Your task to perform on an android device: Show me the alarms in the clock app Image 0: 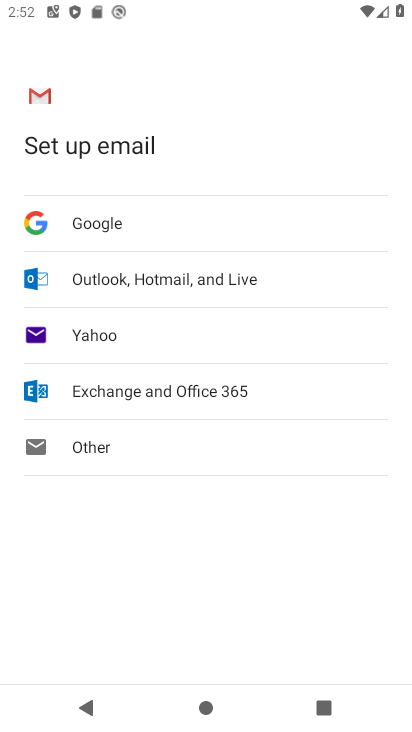
Step 0: press home button
Your task to perform on an android device: Show me the alarms in the clock app Image 1: 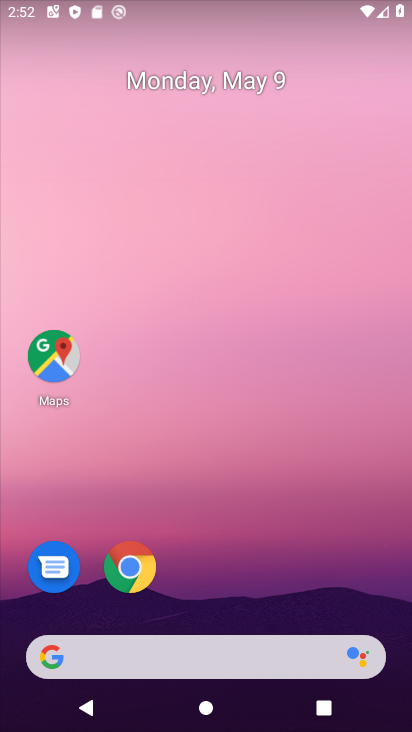
Step 1: drag from (222, 578) to (173, 162)
Your task to perform on an android device: Show me the alarms in the clock app Image 2: 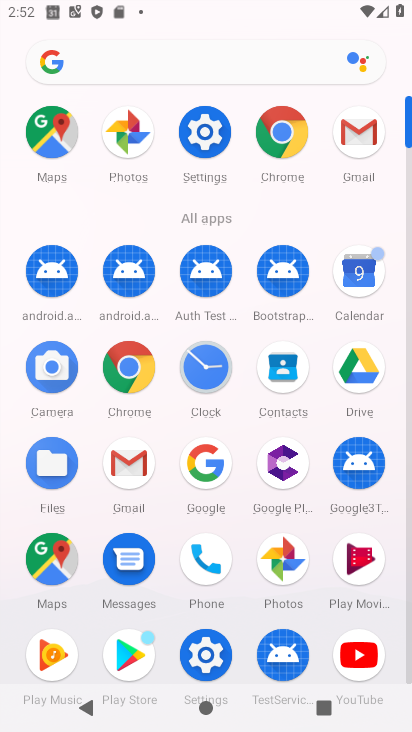
Step 2: drag from (205, 575) to (180, 364)
Your task to perform on an android device: Show me the alarms in the clock app Image 3: 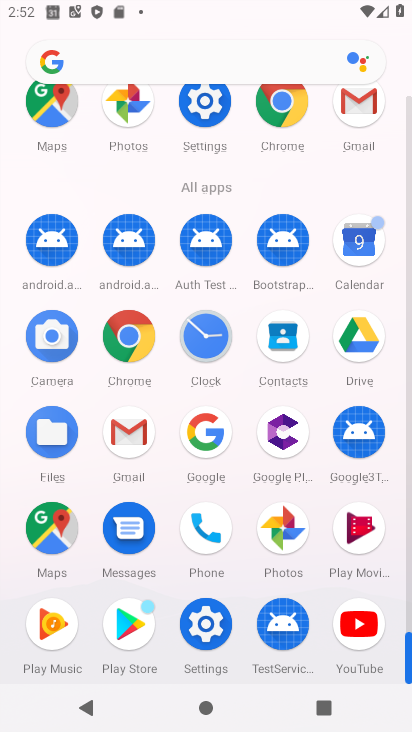
Step 3: click (208, 348)
Your task to perform on an android device: Show me the alarms in the clock app Image 4: 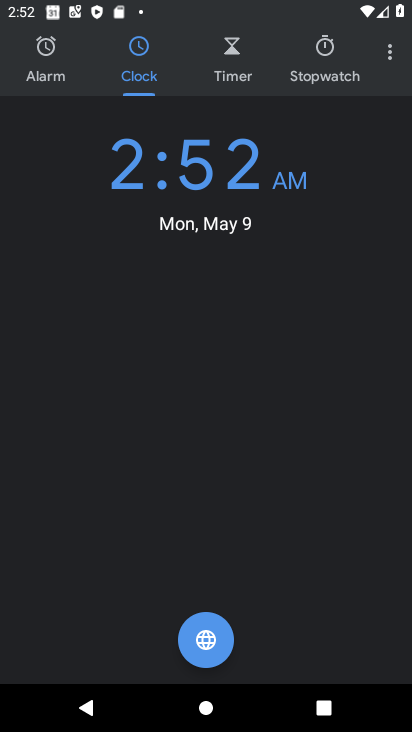
Step 4: click (56, 65)
Your task to perform on an android device: Show me the alarms in the clock app Image 5: 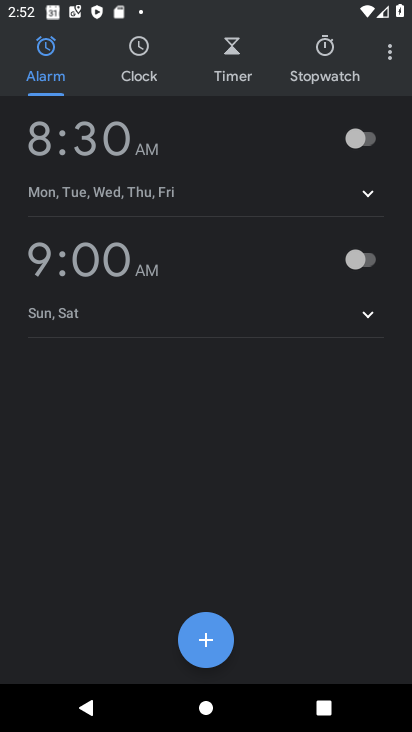
Step 5: task complete